Your task to perform on an android device: open a bookmark in the chrome app Image 0: 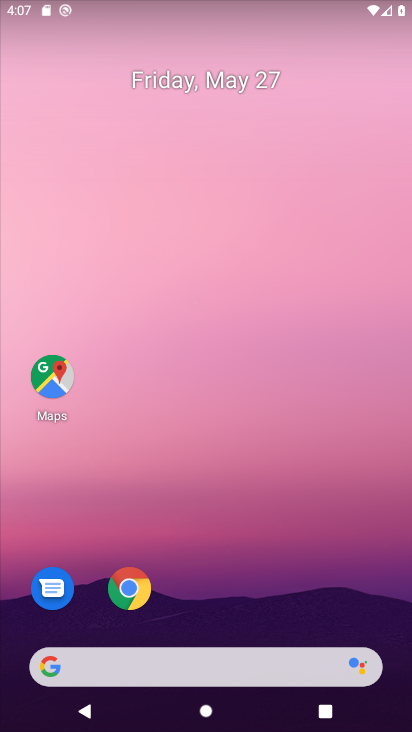
Step 0: click (122, 595)
Your task to perform on an android device: open a bookmark in the chrome app Image 1: 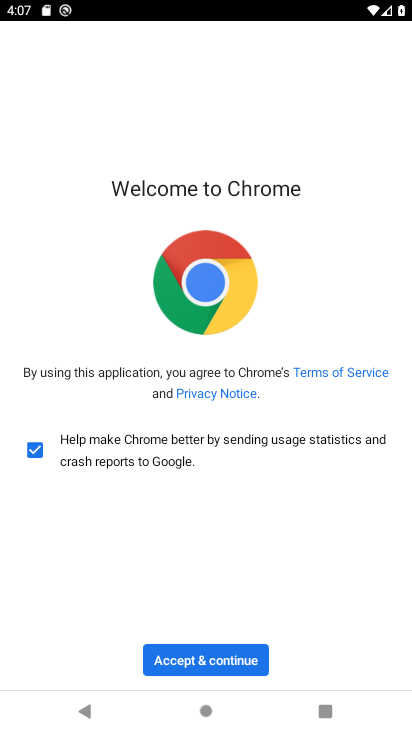
Step 1: click (237, 668)
Your task to perform on an android device: open a bookmark in the chrome app Image 2: 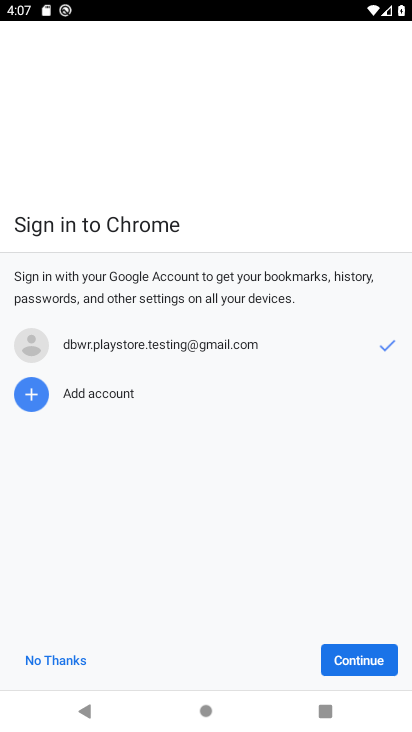
Step 2: click (349, 657)
Your task to perform on an android device: open a bookmark in the chrome app Image 3: 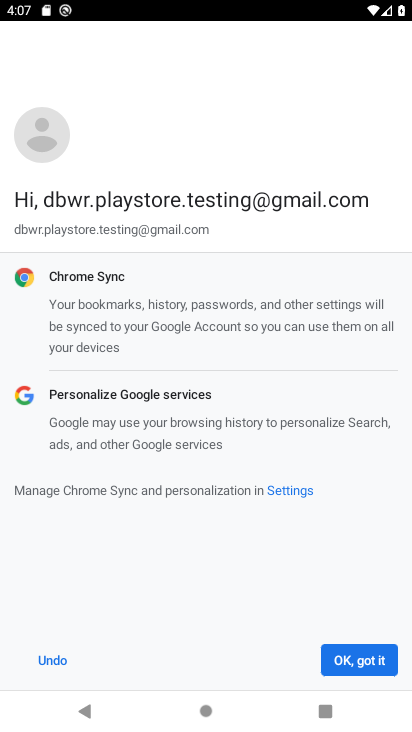
Step 3: click (349, 657)
Your task to perform on an android device: open a bookmark in the chrome app Image 4: 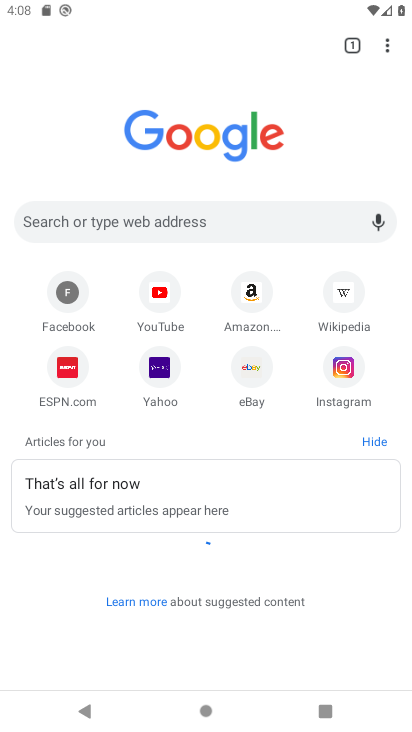
Step 4: click (385, 46)
Your task to perform on an android device: open a bookmark in the chrome app Image 5: 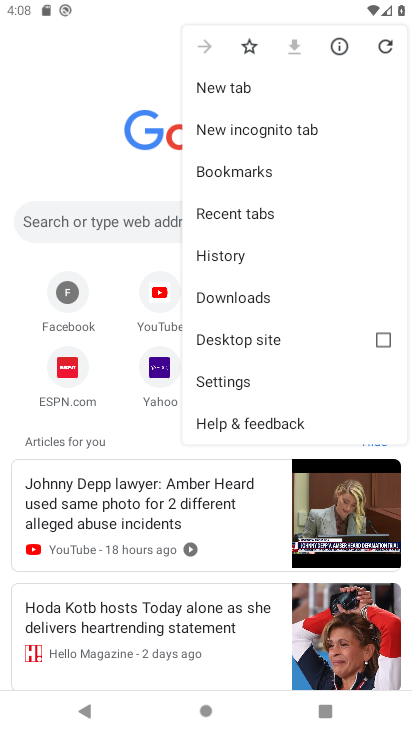
Step 5: click (251, 174)
Your task to perform on an android device: open a bookmark in the chrome app Image 6: 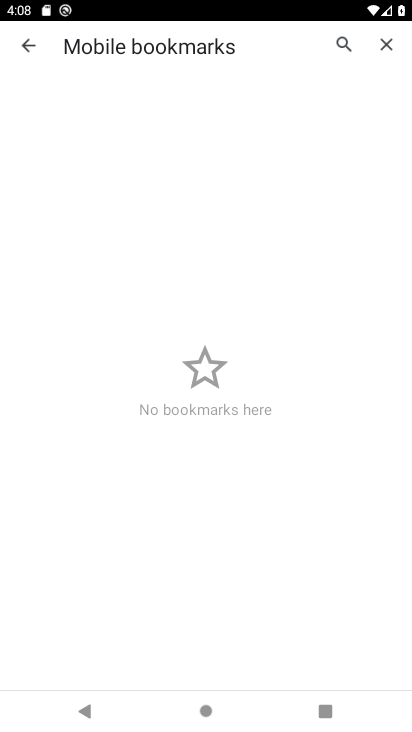
Step 6: task complete